Your task to perform on an android device: Open maps Image 0: 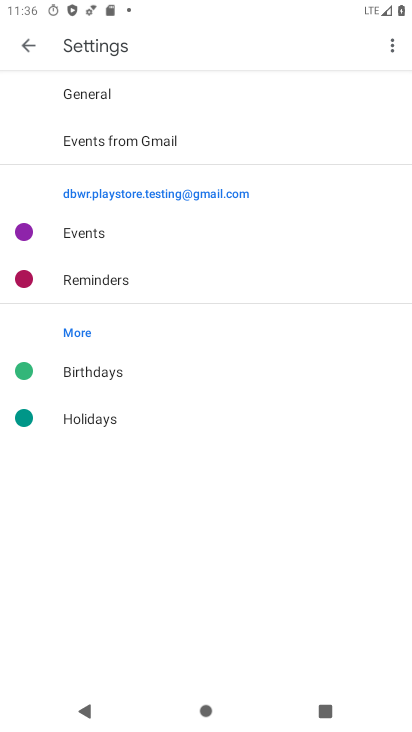
Step 0: press home button
Your task to perform on an android device: Open maps Image 1: 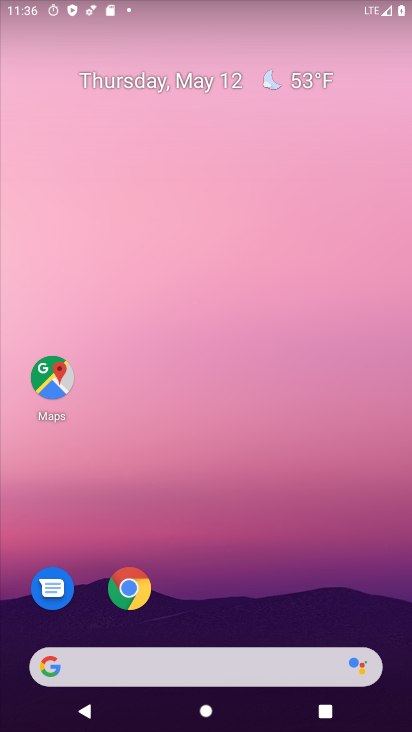
Step 1: click (45, 376)
Your task to perform on an android device: Open maps Image 2: 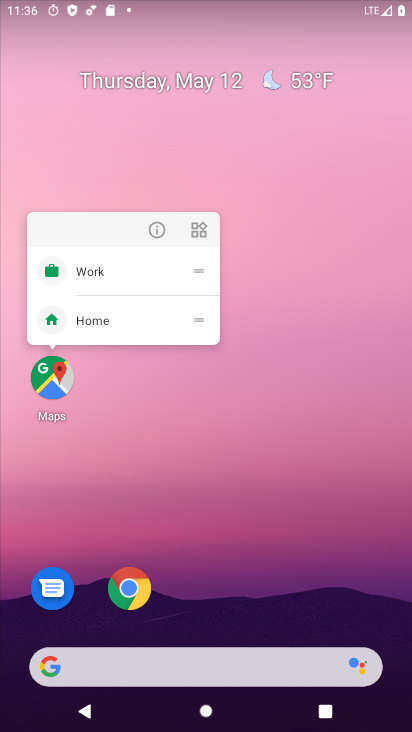
Step 2: click (55, 388)
Your task to perform on an android device: Open maps Image 3: 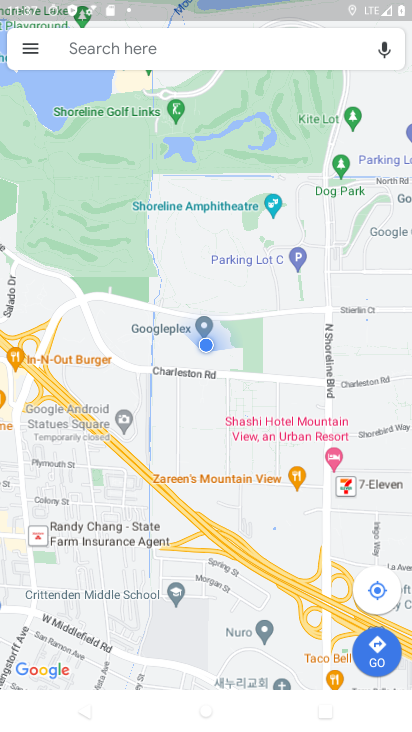
Step 3: task complete